Your task to perform on an android device: Open Youtube and go to the subscriptions tab Image 0: 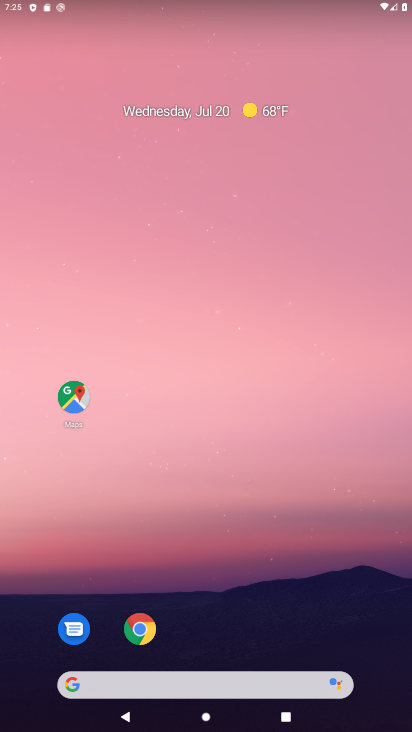
Step 0: drag from (318, 598) to (391, 85)
Your task to perform on an android device: Open Youtube and go to the subscriptions tab Image 1: 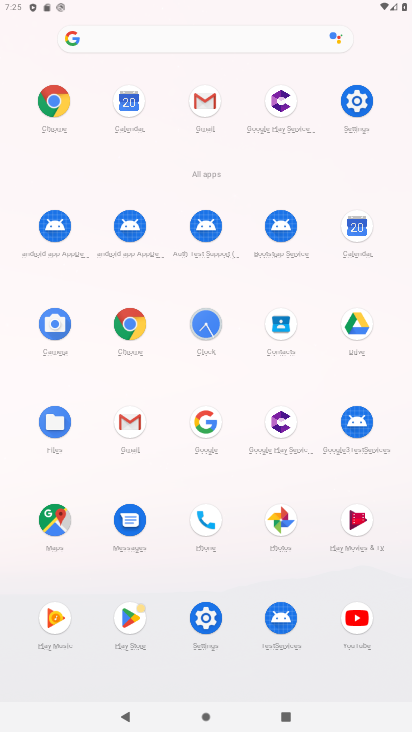
Step 1: click (354, 624)
Your task to perform on an android device: Open Youtube and go to the subscriptions tab Image 2: 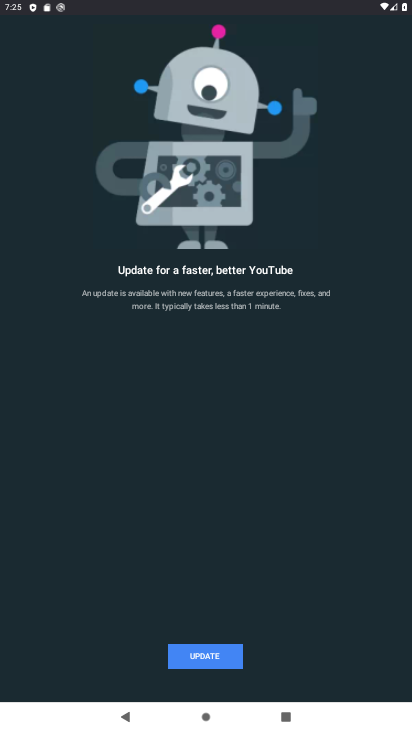
Step 2: click (213, 651)
Your task to perform on an android device: Open Youtube and go to the subscriptions tab Image 3: 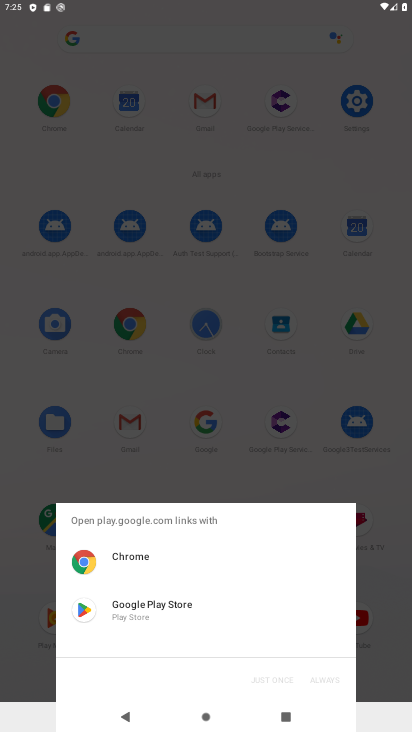
Step 3: click (171, 606)
Your task to perform on an android device: Open Youtube and go to the subscriptions tab Image 4: 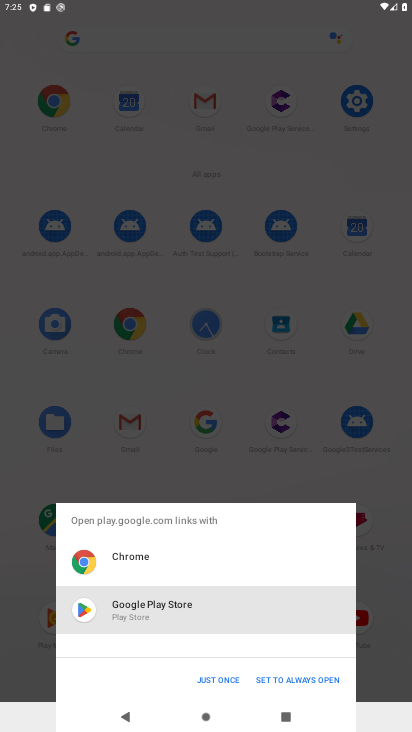
Step 4: click (213, 682)
Your task to perform on an android device: Open Youtube and go to the subscriptions tab Image 5: 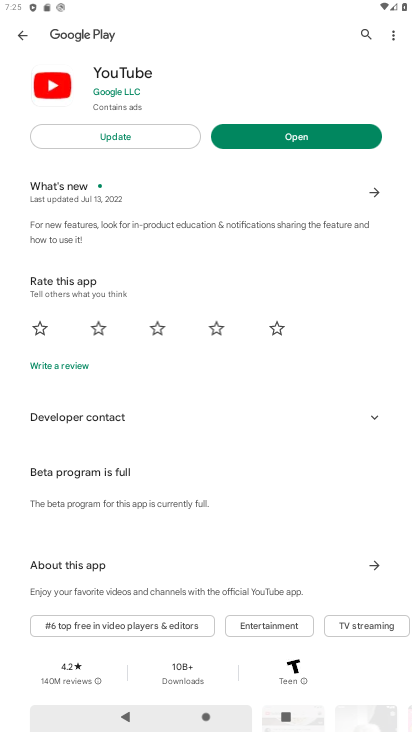
Step 5: click (138, 133)
Your task to perform on an android device: Open Youtube and go to the subscriptions tab Image 6: 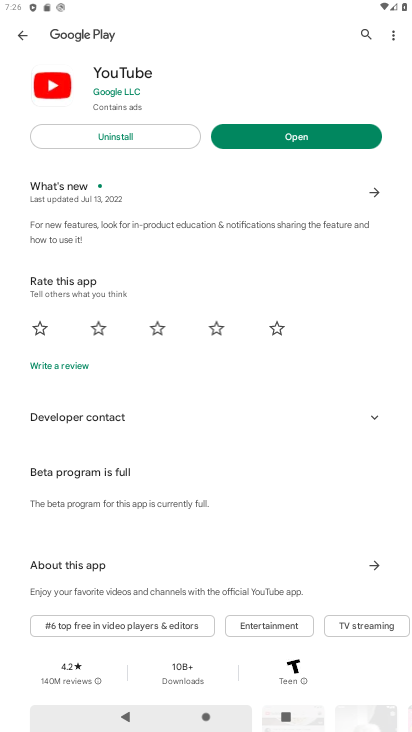
Step 6: click (249, 140)
Your task to perform on an android device: Open Youtube and go to the subscriptions tab Image 7: 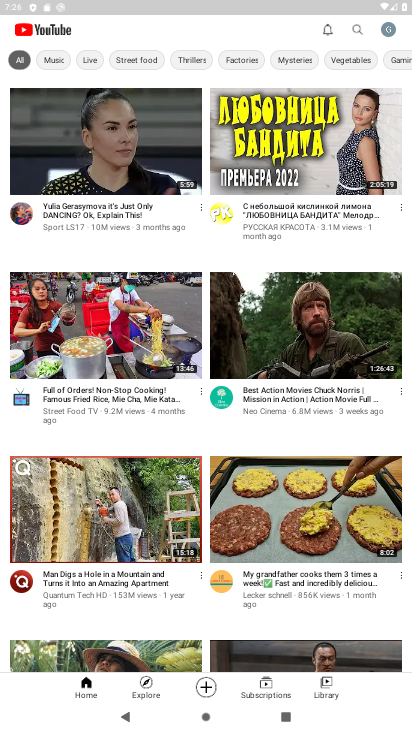
Step 7: click (254, 690)
Your task to perform on an android device: Open Youtube and go to the subscriptions tab Image 8: 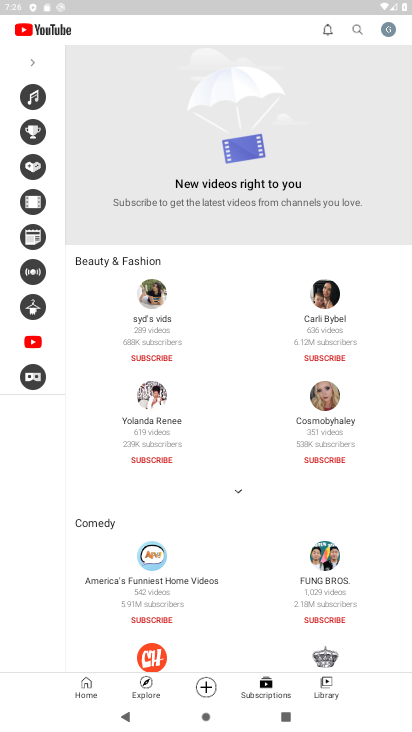
Step 8: task complete